Your task to perform on an android device: open app "Clock" (install if not already installed) Image 0: 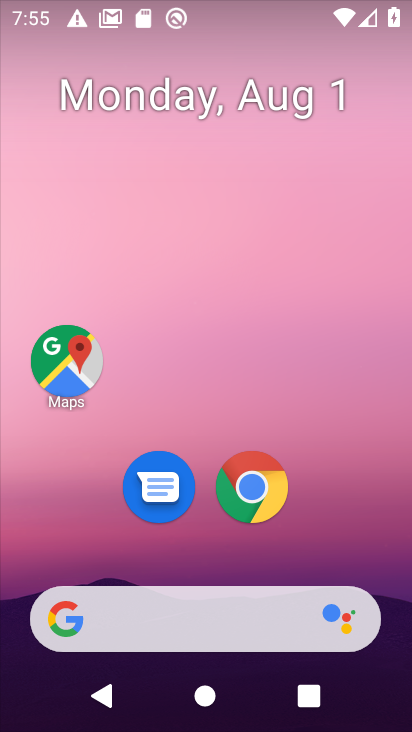
Step 0: press home button
Your task to perform on an android device: open app "Clock" (install if not already installed) Image 1: 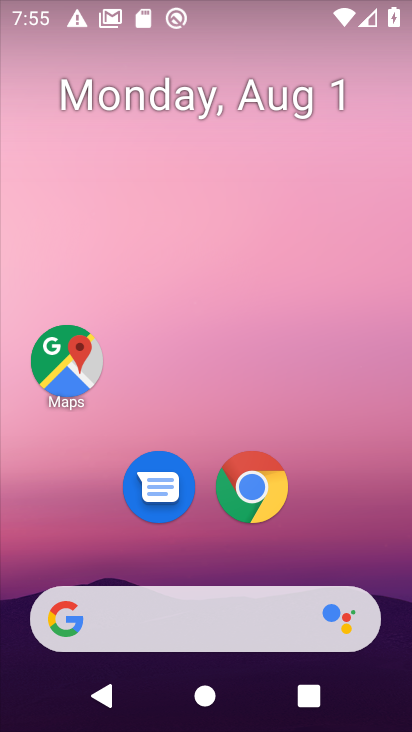
Step 1: drag from (374, 559) to (371, 62)
Your task to perform on an android device: open app "Clock" (install if not already installed) Image 2: 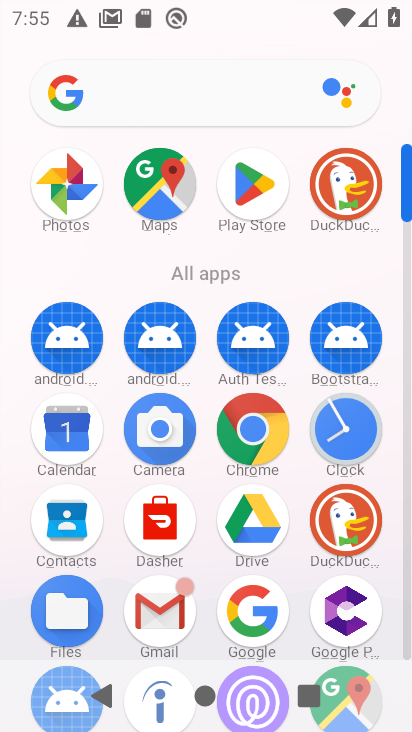
Step 2: click (359, 442)
Your task to perform on an android device: open app "Clock" (install if not already installed) Image 3: 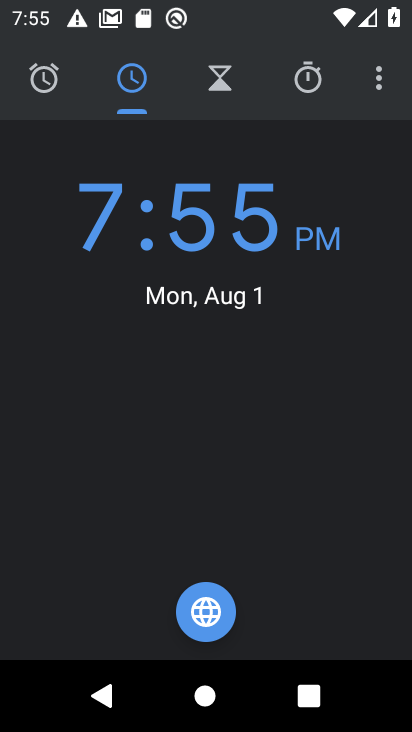
Step 3: task complete